Your task to perform on an android device: Clear all items from cart on target.com. Search for usb-a to usb-b on target.com, select the first entry, add it to the cart, then select checkout. Image 0: 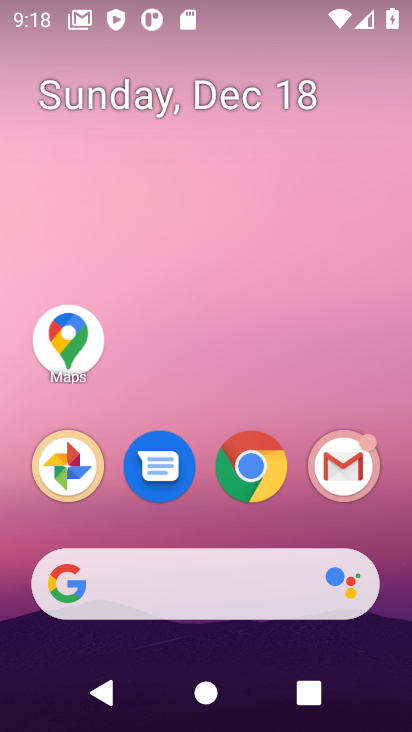
Step 0: click (258, 463)
Your task to perform on an android device: Clear all items from cart on target.com. Search for usb-a to usb-b on target.com, select the first entry, add it to the cart, then select checkout. Image 1: 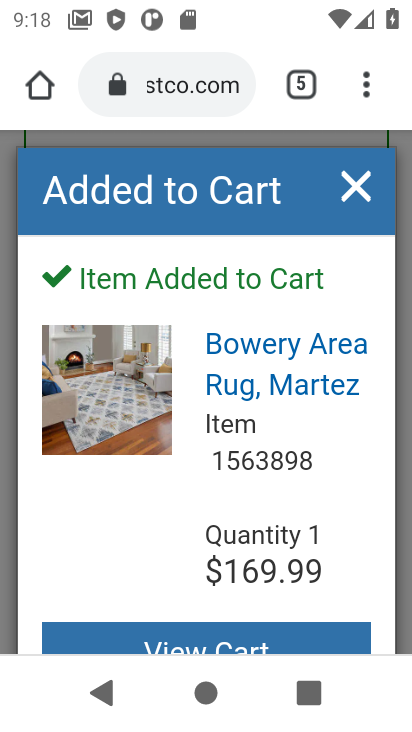
Step 1: click (170, 83)
Your task to perform on an android device: Clear all items from cart on target.com. Search for usb-a to usb-b on target.com, select the first entry, add it to the cart, then select checkout. Image 2: 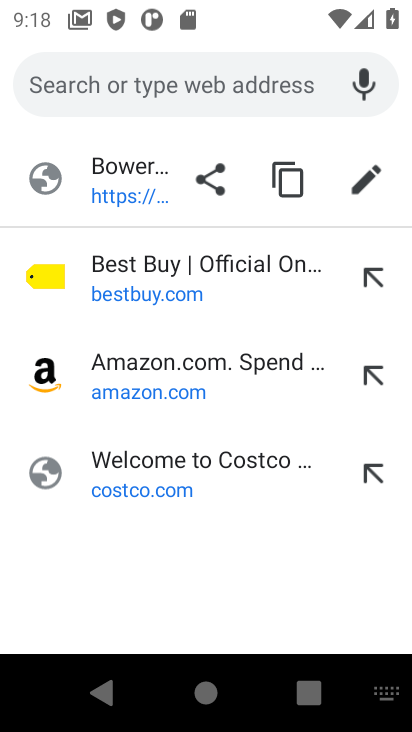
Step 2: type "TARGET"
Your task to perform on an android device: Clear all items from cart on target.com. Search for usb-a to usb-b on target.com, select the first entry, add it to the cart, then select checkout. Image 3: 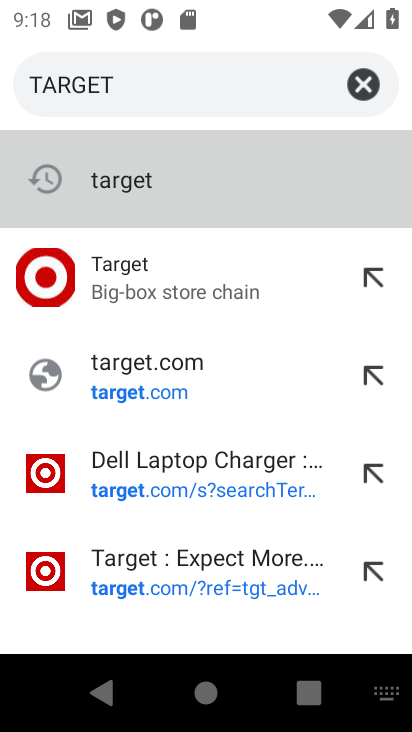
Step 3: click (149, 279)
Your task to perform on an android device: Clear all items from cart on target.com. Search for usb-a to usb-b on target.com, select the first entry, add it to the cart, then select checkout. Image 4: 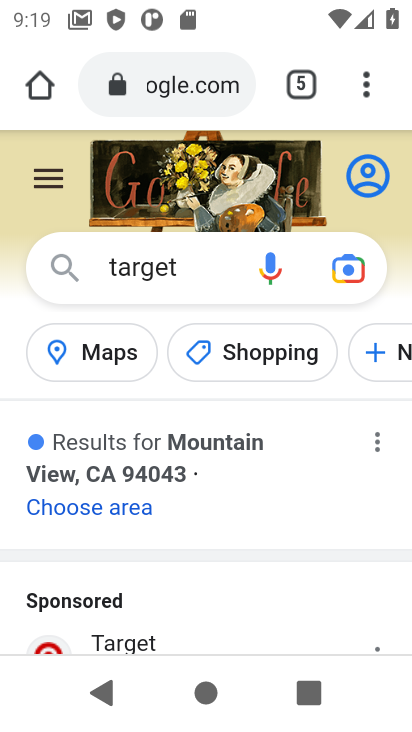
Step 4: drag from (139, 603) to (146, 368)
Your task to perform on an android device: Clear all items from cart on target.com. Search for usb-a to usb-b on target.com, select the first entry, add it to the cart, then select checkout. Image 5: 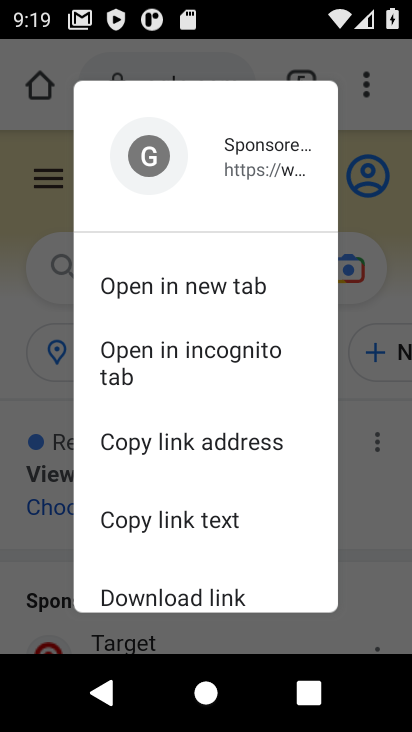
Step 5: click (368, 519)
Your task to perform on an android device: Clear all items from cart on target.com. Search for usb-a to usb-b on target.com, select the first entry, add it to the cart, then select checkout. Image 6: 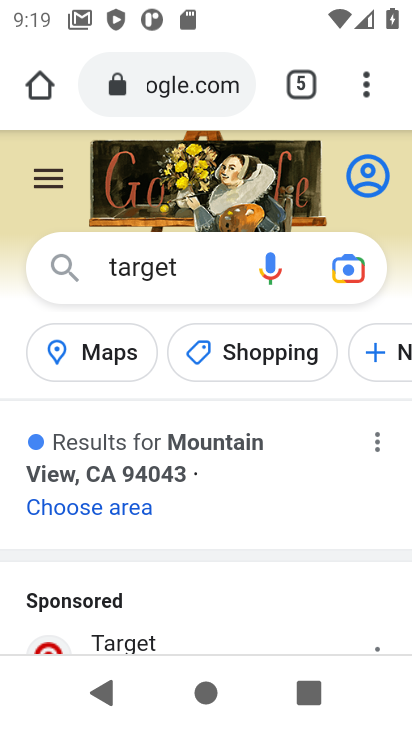
Step 6: drag from (170, 631) to (138, 297)
Your task to perform on an android device: Clear all items from cart on target.com. Search for usb-a to usb-b on target.com, select the first entry, add it to the cart, then select checkout. Image 7: 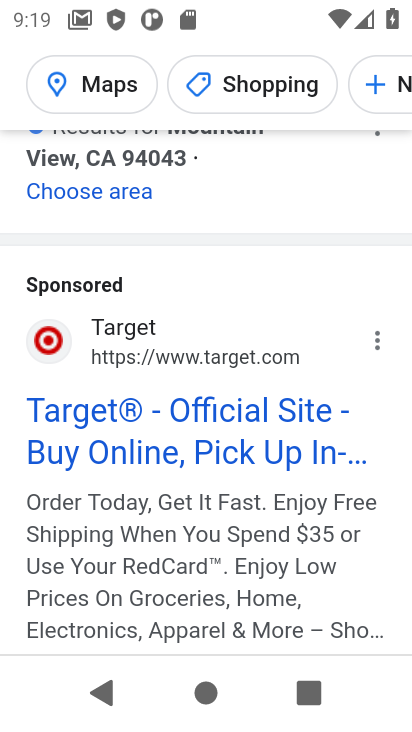
Step 7: click (140, 421)
Your task to perform on an android device: Clear all items from cart on target.com. Search for usb-a to usb-b on target.com, select the first entry, add it to the cart, then select checkout. Image 8: 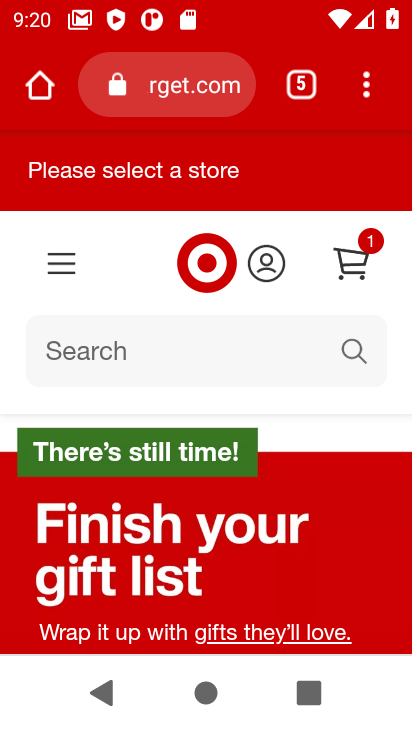
Step 8: click (352, 268)
Your task to perform on an android device: Clear all items from cart on target.com. Search for usb-a to usb-b on target.com, select the first entry, add it to the cart, then select checkout. Image 9: 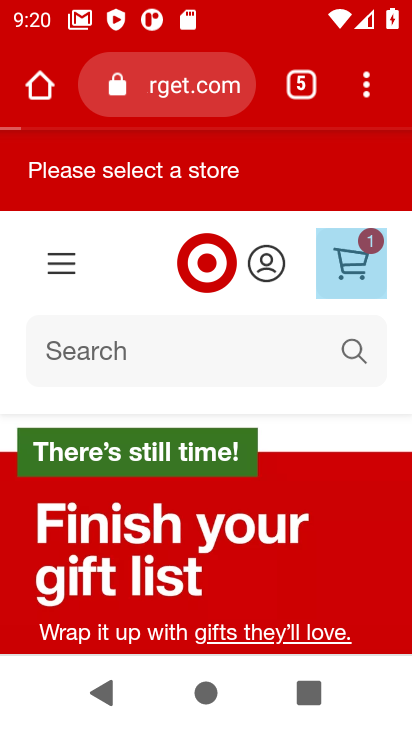
Step 9: click (352, 268)
Your task to perform on an android device: Clear all items from cart on target.com. Search for usb-a to usb-b on target.com, select the first entry, add it to the cart, then select checkout. Image 10: 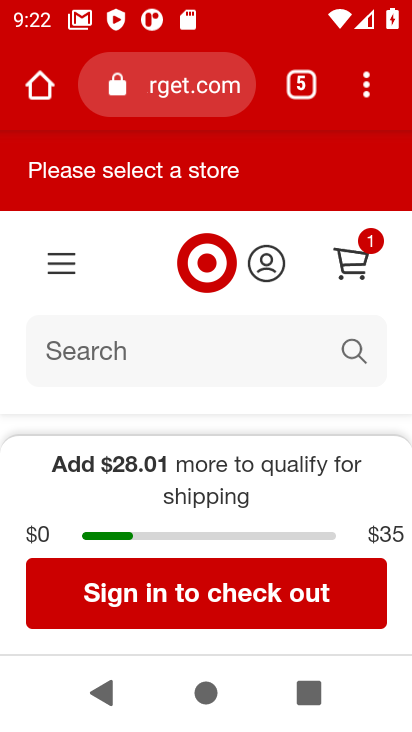
Step 10: click (360, 262)
Your task to perform on an android device: Clear all items from cart on target.com. Search for usb-a to usb-b on target.com, select the first entry, add it to the cart, then select checkout. Image 11: 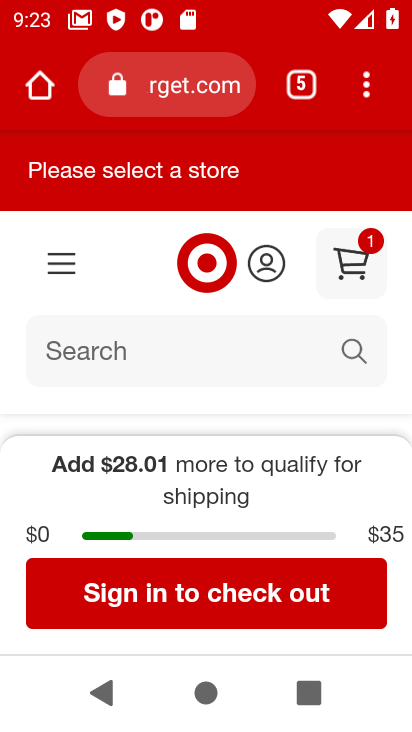
Step 11: drag from (247, 422) to (206, 189)
Your task to perform on an android device: Clear all items from cart on target.com. Search for usb-a to usb-b on target.com, select the first entry, add it to the cart, then select checkout. Image 12: 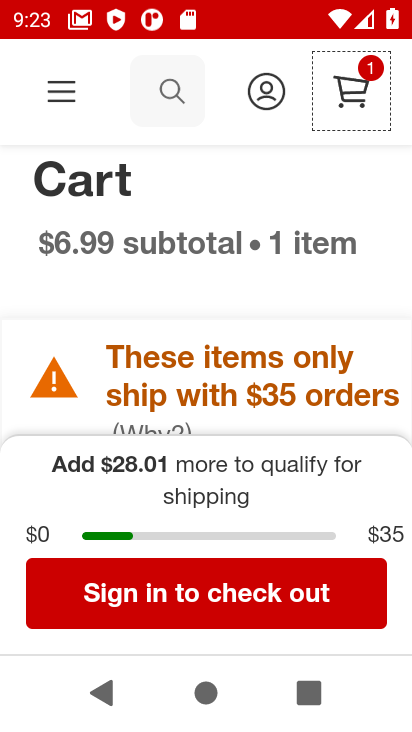
Step 12: drag from (293, 393) to (242, 92)
Your task to perform on an android device: Clear all items from cart on target.com. Search for usb-a to usb-b on target.com, select the first entry, add it to the cart, then select checkout. Image 13: 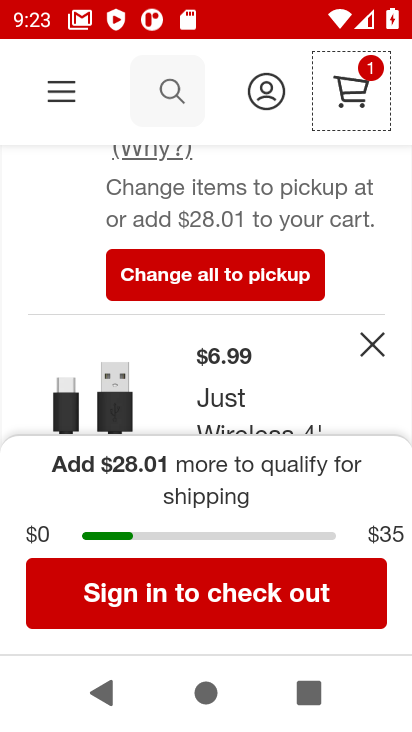
Step 13: click (375, 339)
Your task to perform on an android device: Clear all items from cart on target.com. Search for usb-a to usb-b on target.com, select the first entry, add it to the cart, then select checkout. Image 14: 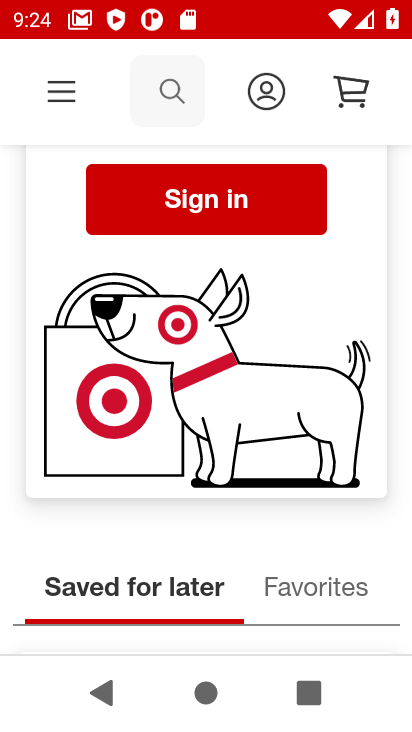
Step 14: task complete